Your task to perform on an android device: Open ESPN.com Image 0: 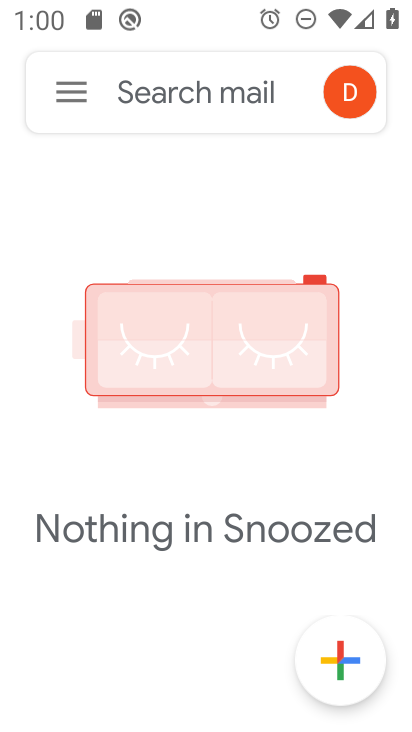
Step 0: press home button
Your task to perform on an android device: Open ESPN.com Image 1: 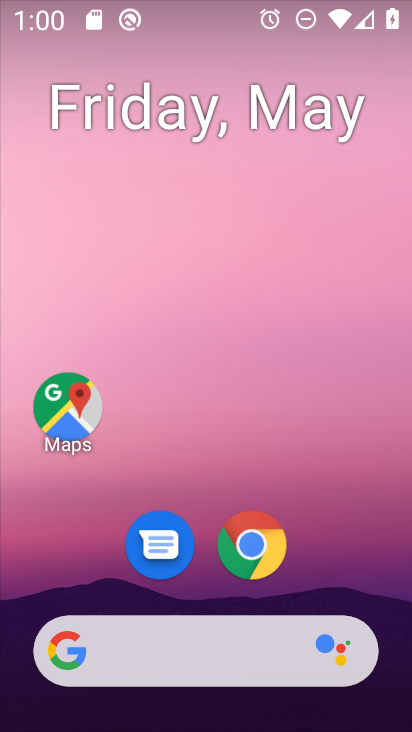
Step 1: drag from (299, 579) to (309, 205)
Your task to perform on an android device: Open ESPN.com Image 2: 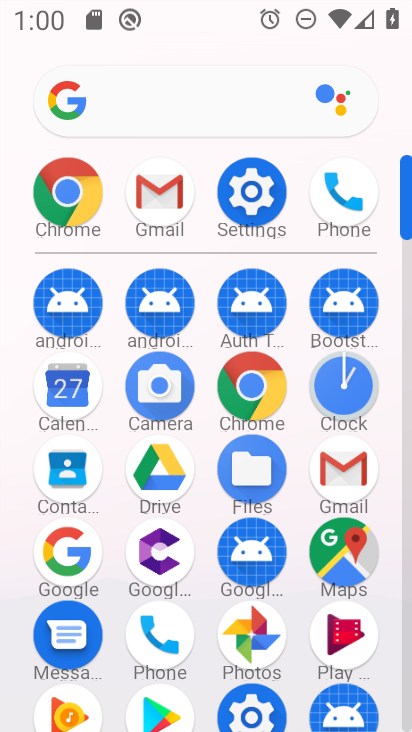
Step 2: click (66, 196)
Your task to perform on an android device: Open ESPN.com Image 3: 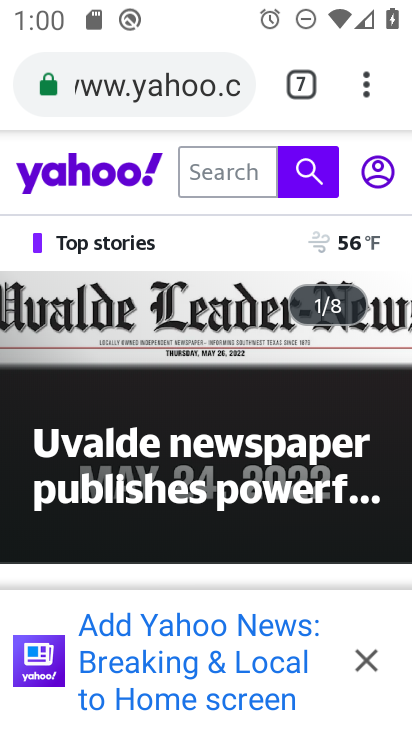
Step 3: click (364, 76)
Your task to perform on an android device: Open ESPN.com Image 4: 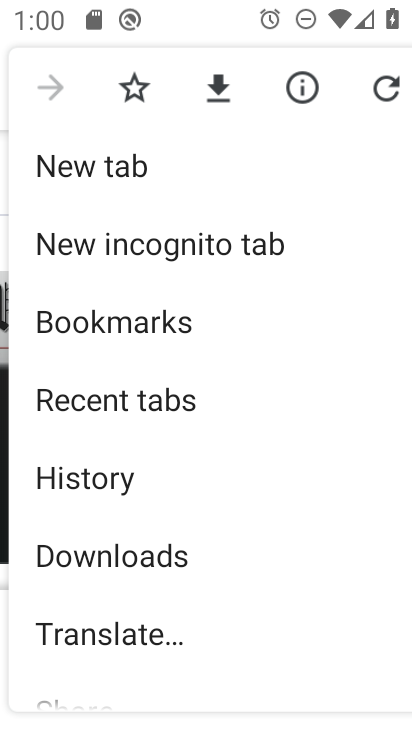
Step 4: click (158, 164)
Your task to perform on an android device: Open ESPN.com Image 5: 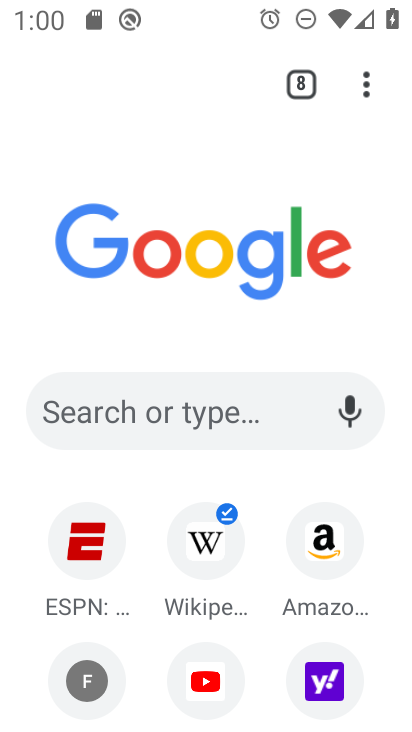
Step 5: click (60, 523)
Your task to perform on an android device: Open ESPN.com Image 6: 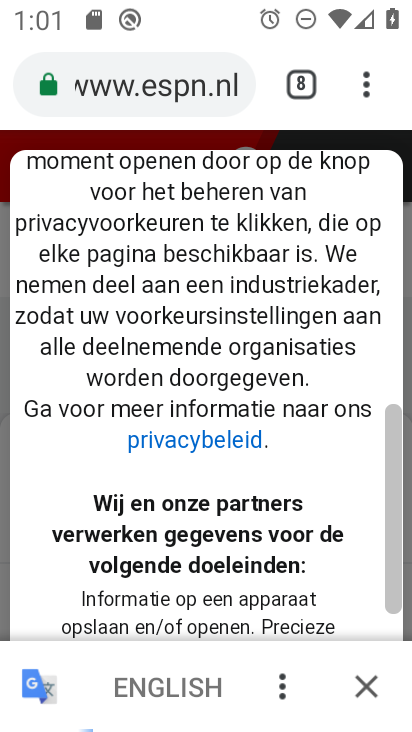
Step 6: click (160, 708)
Your task to perform on an android device: Open ESPN.com Image 7: 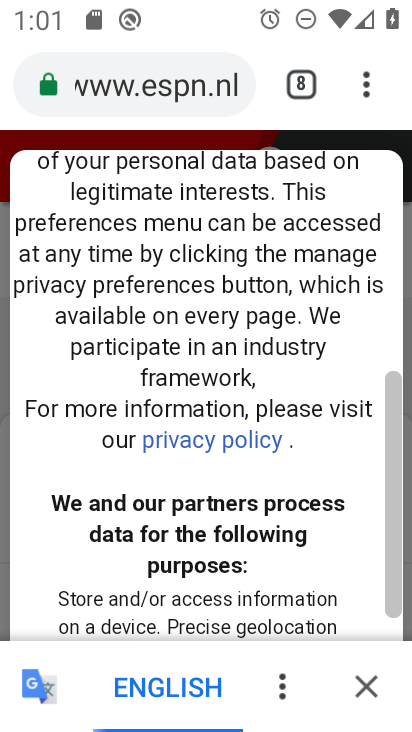
Step 7: task complete